Your task to perform on an android device: Open the phone app and click the voicemail tab. Image 0: 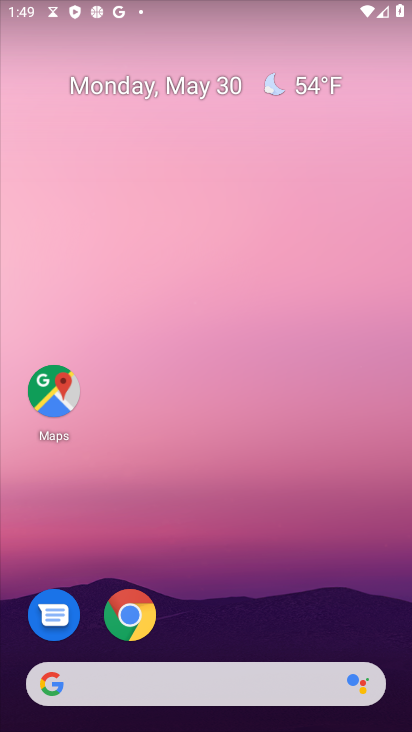
Step 0: drag from (286, 501) to (225, 6)
Your task to perform on an android device: Open the phone app and click the voicemail tab. Image 1: 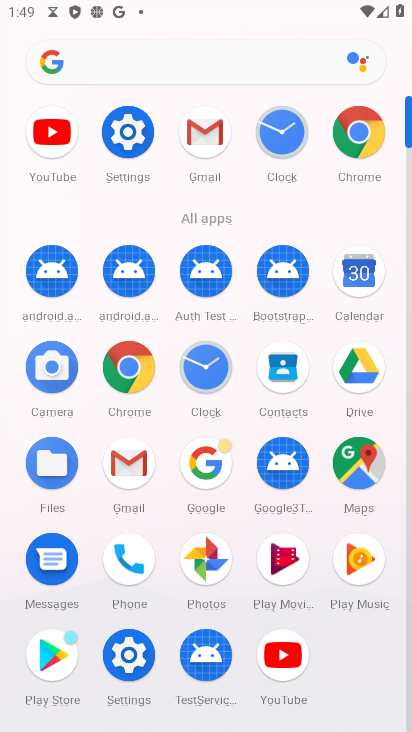
Step 1: click (127, 550)
Your task to perform on an android device: Open the phone app and click the voicemail tab. Image 2: 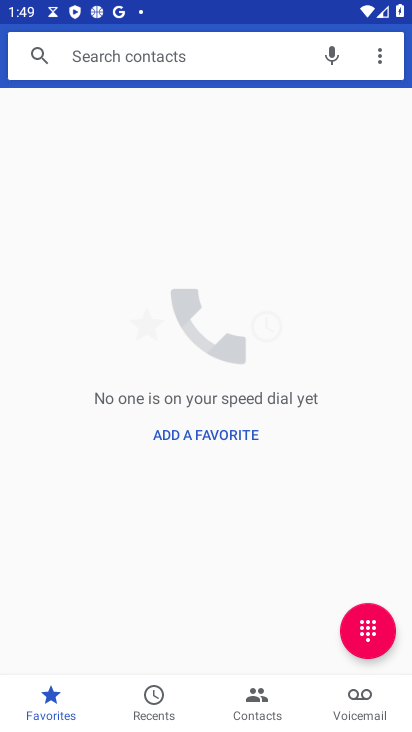
Step 2: click (370, 717)
Your task to perform on an android device: Open the phone app and click the voicemail tab. Image 3: 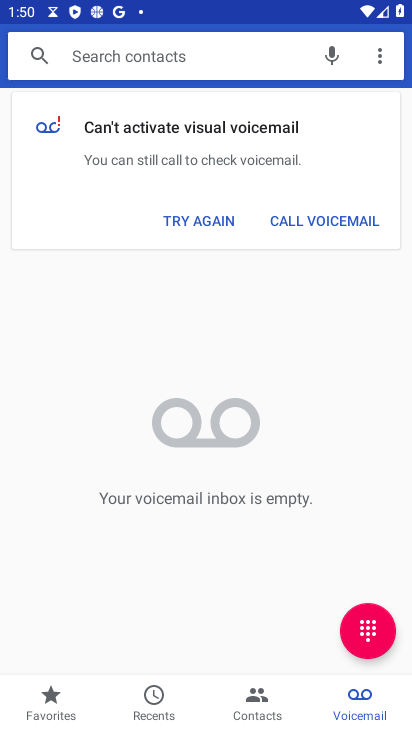
Step 3: task complete